Your task to perform on an android device: turn off priority inbox in the gmail app Image 0: 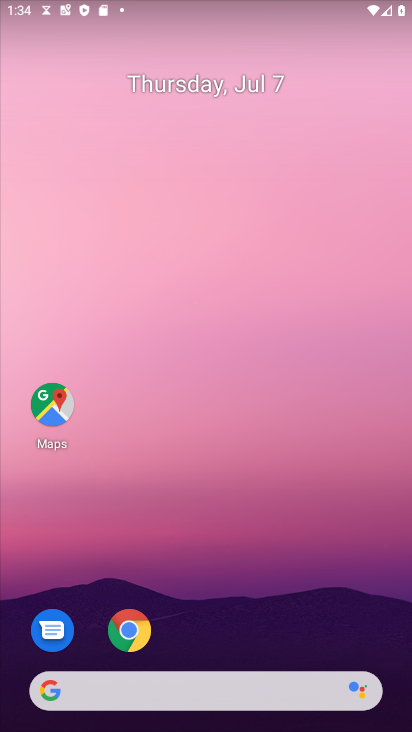
Step 0: click (217, 0)
Your task to perform on an android device: turn off priority inbox in the gmail app Image 1: 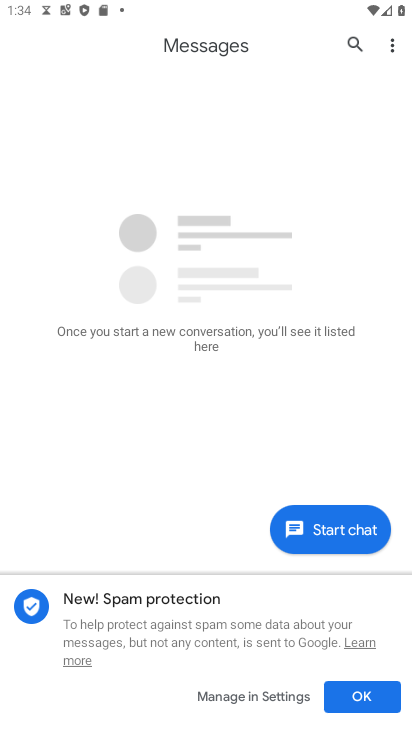
Step 1: press home button
Your task to perform on an android device: turn off priority inbox in the gmail app Image 2: 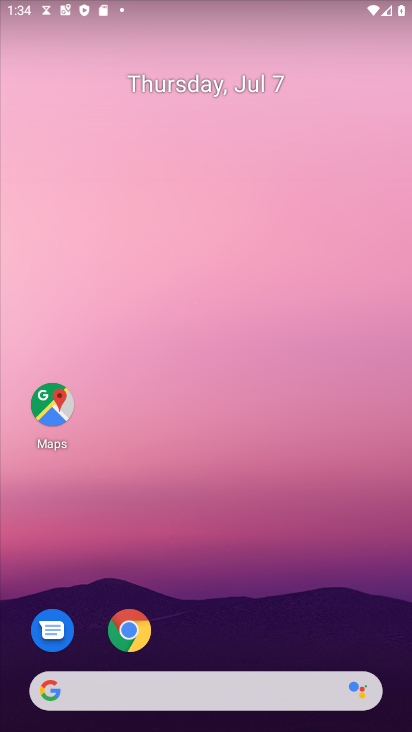
Step 2: drag from (268, 649) to (248, 0)
Your task to perform on an android device: turn off priority inbox in the gmail app Image 3: 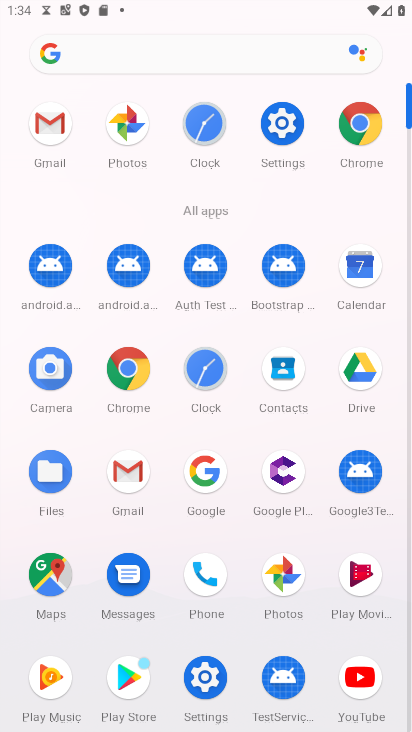
Step 3: click (290, 123)
Your task to perform on an android device: turn off priority inbox in the gmail app Image 4: 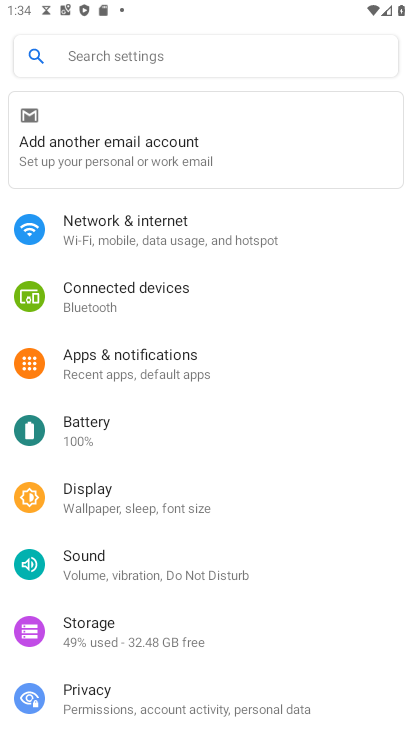
Step 4: press home button
Your task to perform on an android device: turn off priority inbox in the gmail app Image 5: 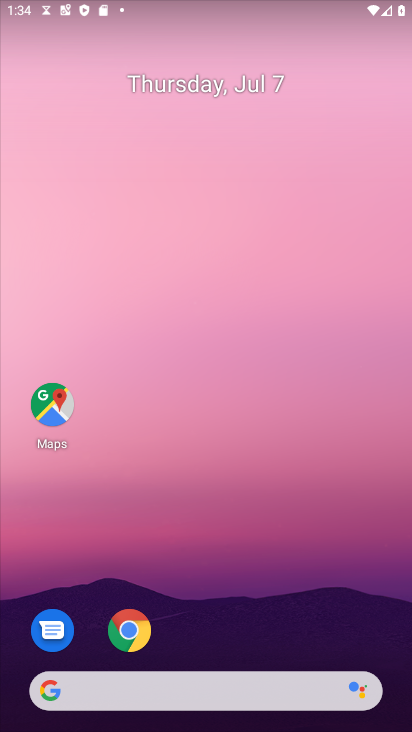
Step 5: drag from (238, 648) to (149, 44)
Your task to perform on an android device: turn off priority inbox in the gmail app Image 6: 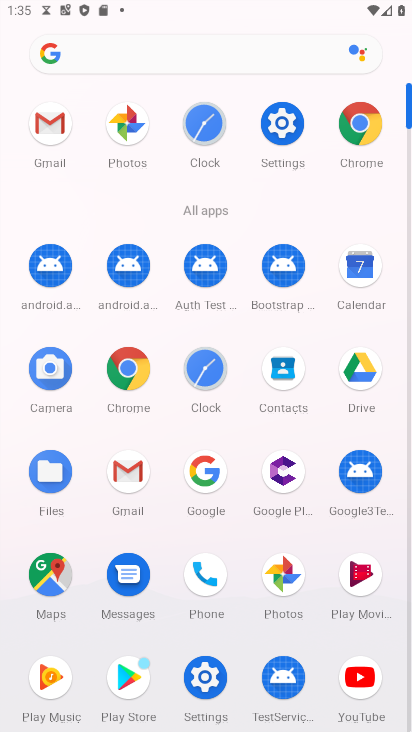
Step 6: click (51, 116)
Your task to perform on an android device: turn off priority inbox in the gmail app Image 7: 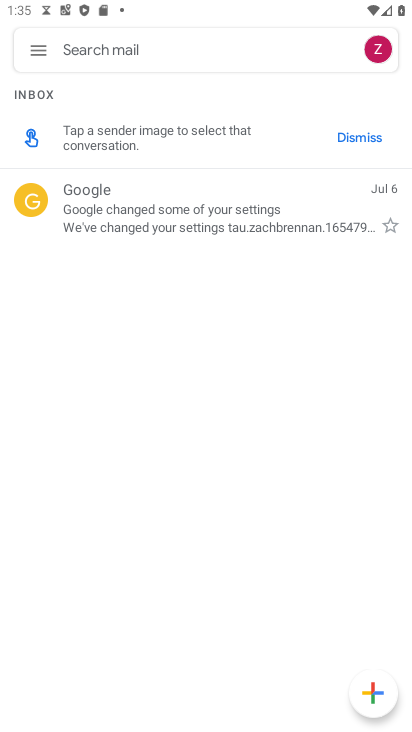
Step 7: click (42, 46)
Your task to perform on an android device: turn off priority inbox in the gmail app Image 8: 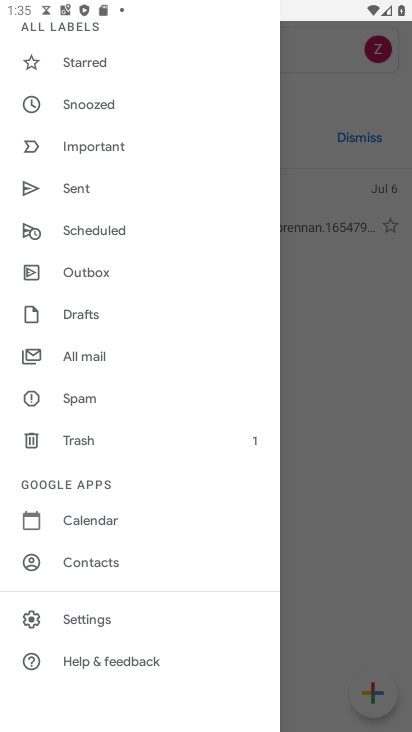
Step 8: click (117, 624)
Your task to perform on an android device: turn off priority inbox in the gmail app Image 9: 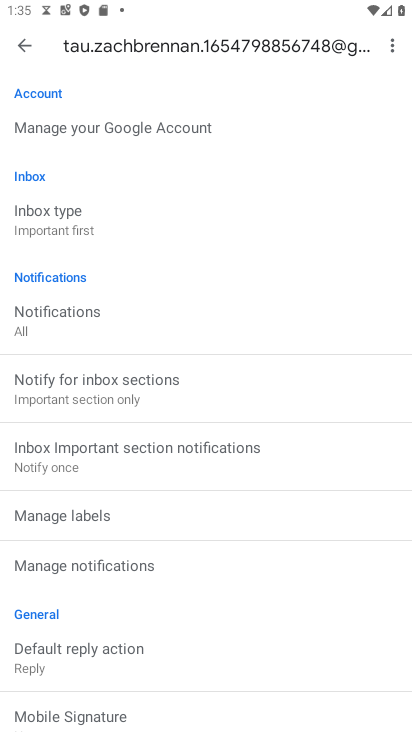
Step 9: click (181, 223)
Your task to perform on an android device: turn off priority inbox in the gmail app Image 10: 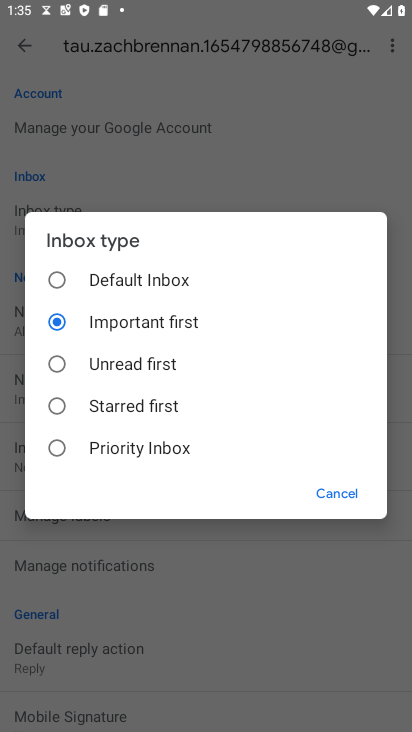
Step 10: task complete